Your task to perform on an android device: Open Chrome and go to settings Image 0: 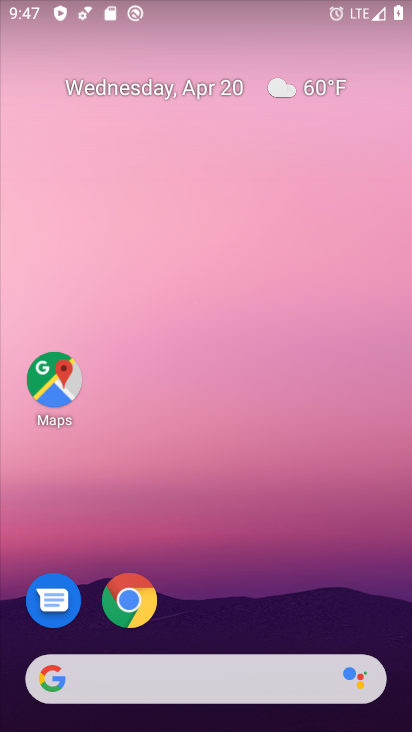
Step 0: click (140, 576)
Your task to perform on an android device: Open Chrome and go to settings Image 1: 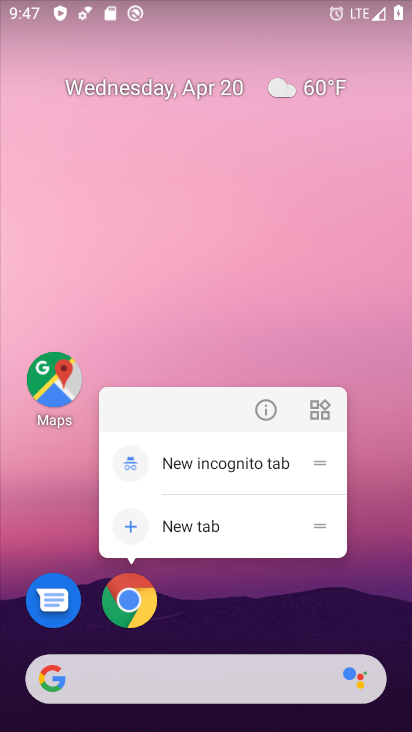
Step 1: click (137, 597)
Your task to perform on an android device: Open Chrome and go to settings Image 2: 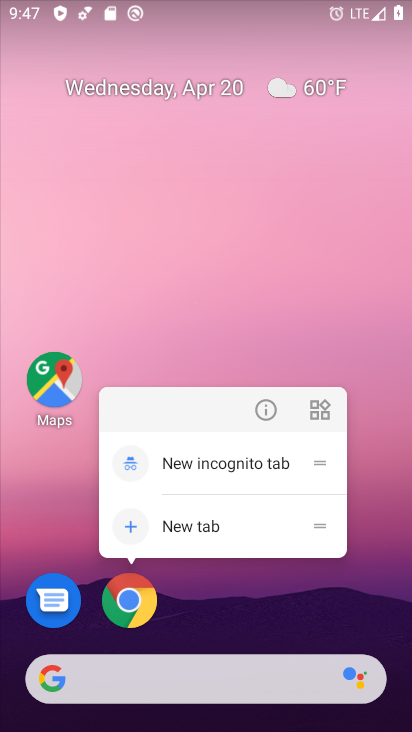
Step 2: click (135, 603)
Your task to perform on an android device: Open Chrome and go to settings Image 3: 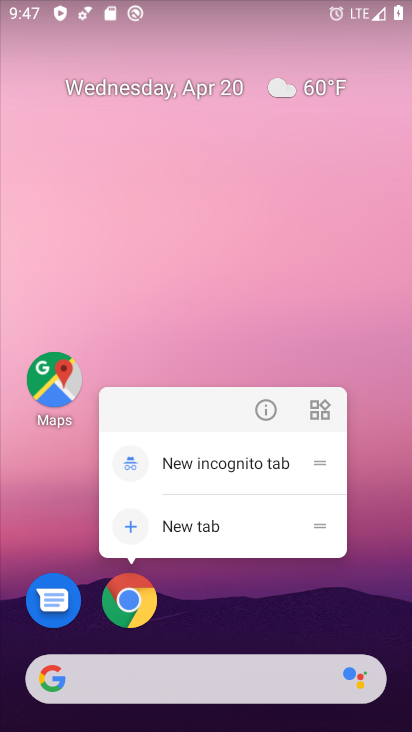
Step 3: click (131, 605)
Your task to perform on an android device: Open Chrome and go to settings Image 4: 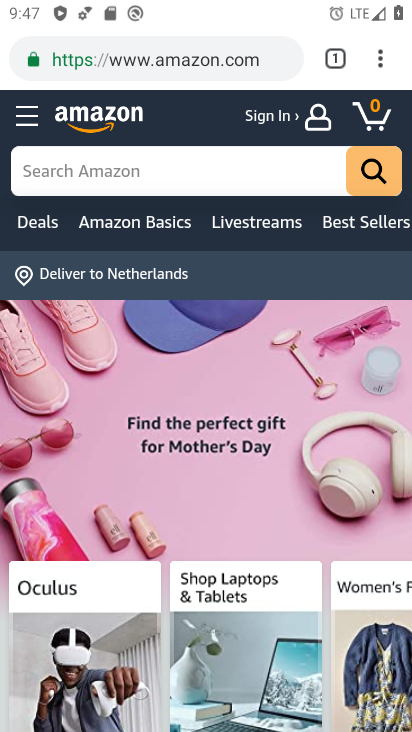
Step 4: task complete